Your task to perform on an android device: Do I have any events today? Image 0: 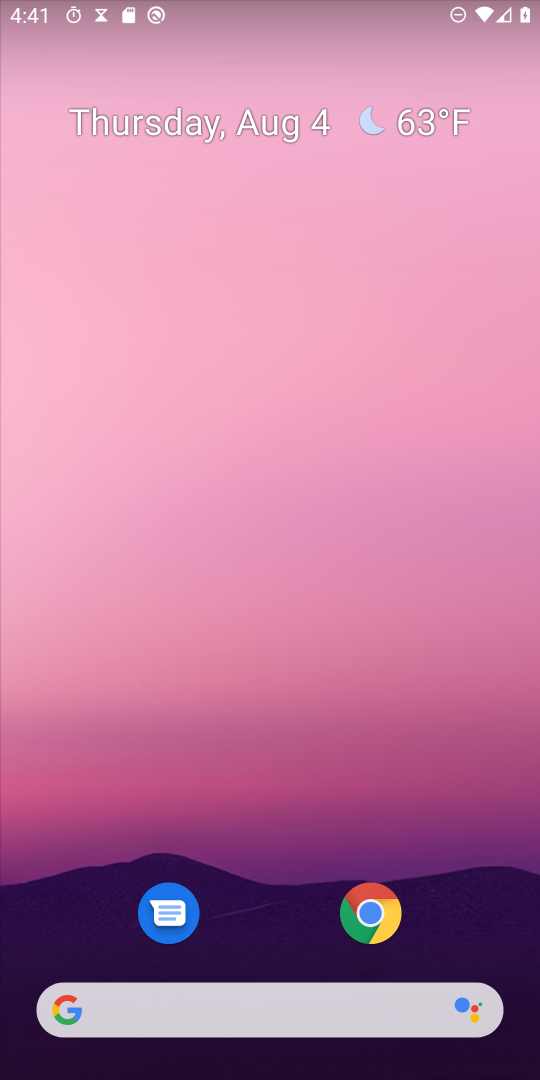
Step 0: drag from (316, 985) to (217, 119)
Your task to perform on an android device: Do I have any events today? Image 1: 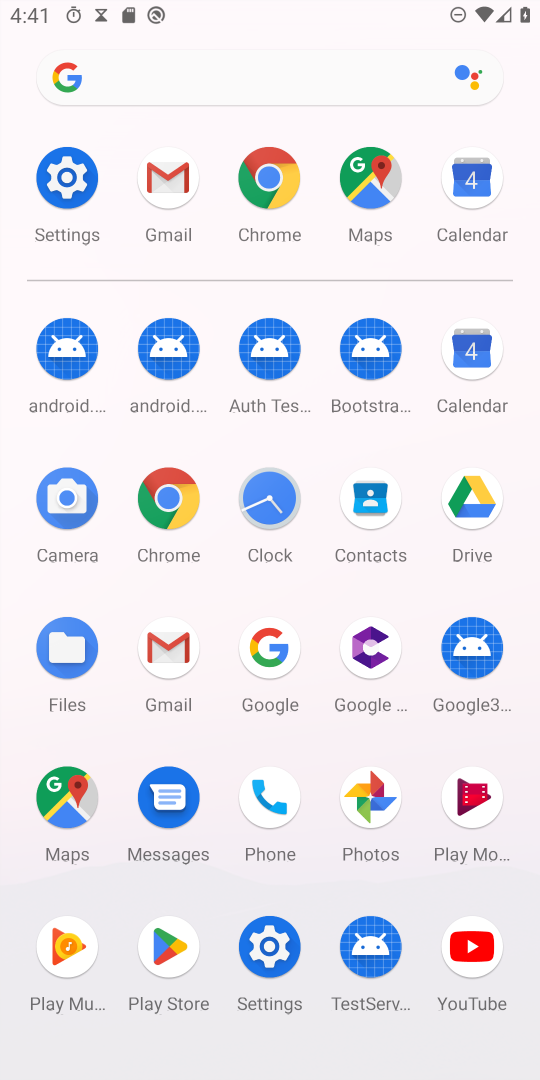
Step 1: click (462, 367)
Your task to perform on an android device: Do I have any events today? Image 2: 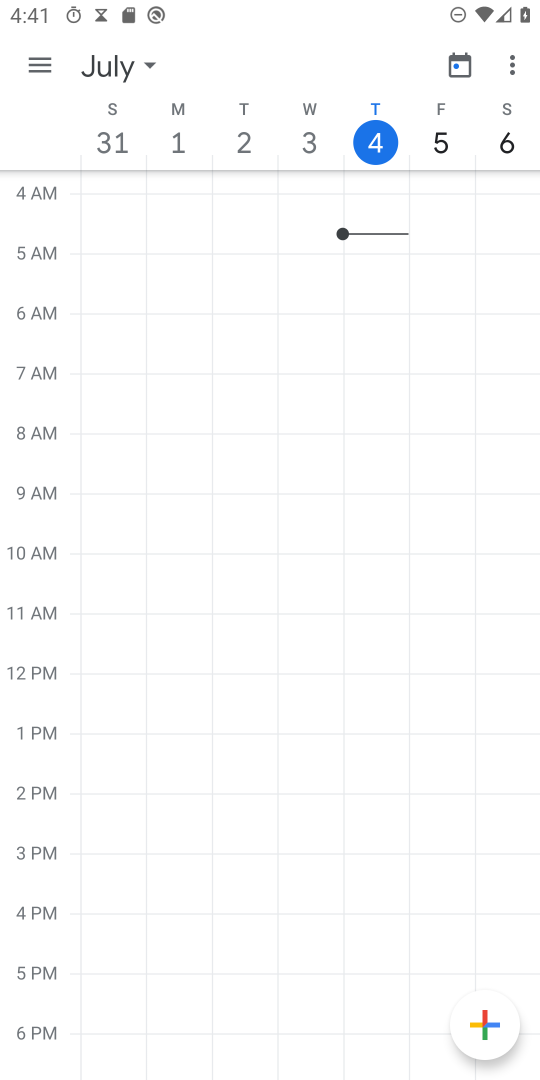
Step 2: task complete